Your task to perform on an android device: turn on priority inbox in the gmail app Image 0: 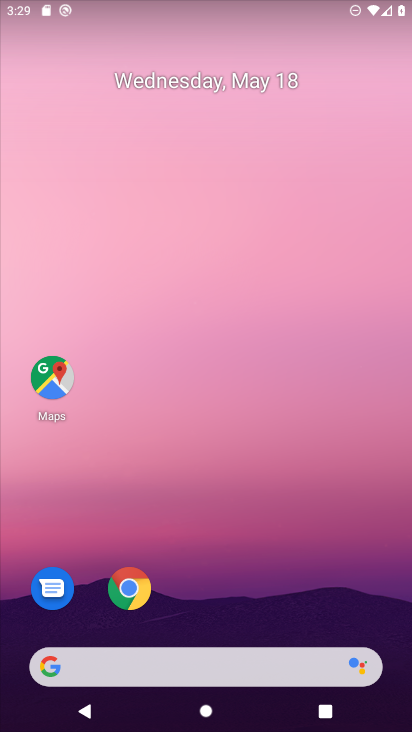
Step 0: drag from (314, 596) to (301, 170)
Your task to perform on an android device: turn on priority inbox in the gmail app Image 1: 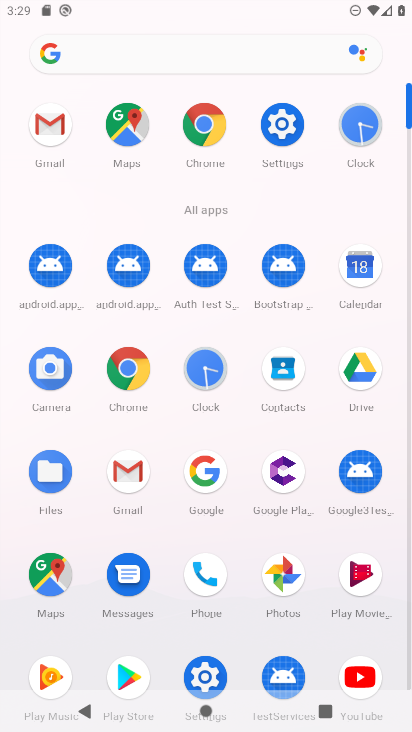
Step 1: click (26, 142)
Your task to perform on an android device: turn on priority inbox in the gmail app Image 2: 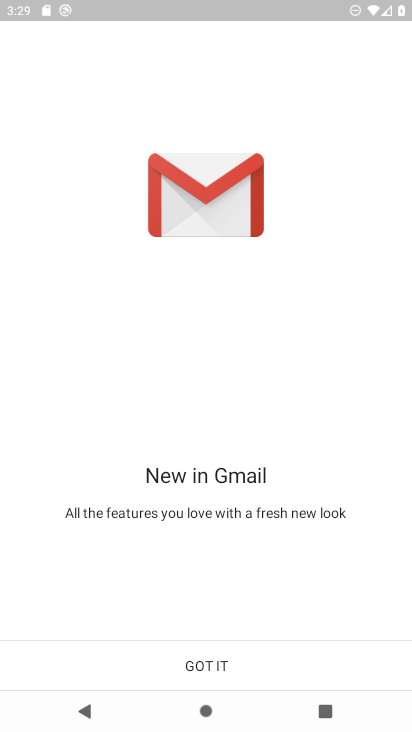
Step 2: click (245, 664)
Your task to perform on an android device: turn on priority inbox in the gmail app Image 3: 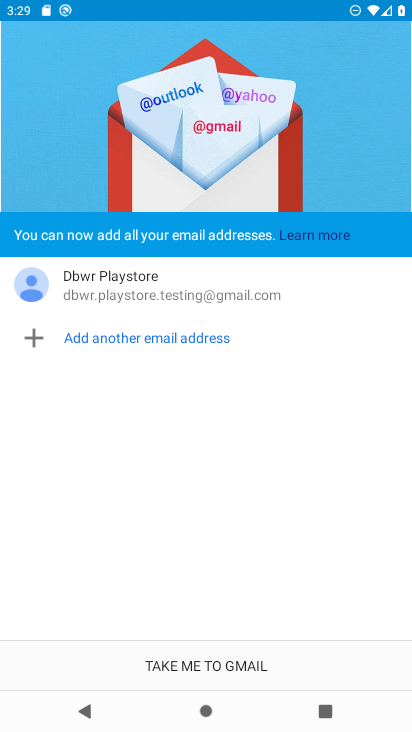
Step 3: click (245, 664)
Your task to perform on an android device: turn on priority inbox in the gmail app Image 4: 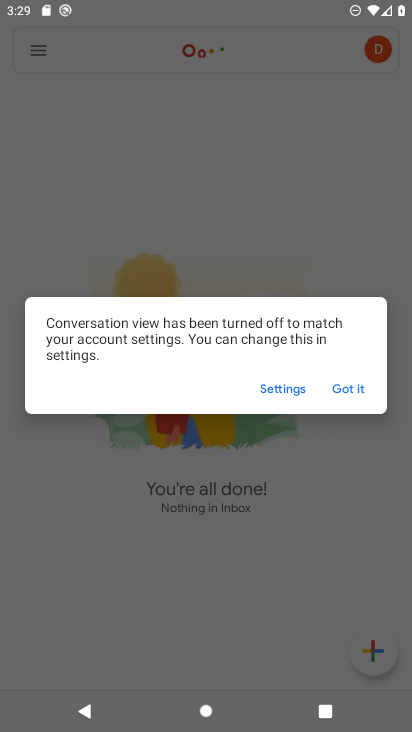
Step 4: click (364, 385)
Your task to perform on an android device: turn on priority inbox in the gmail app Image 5: 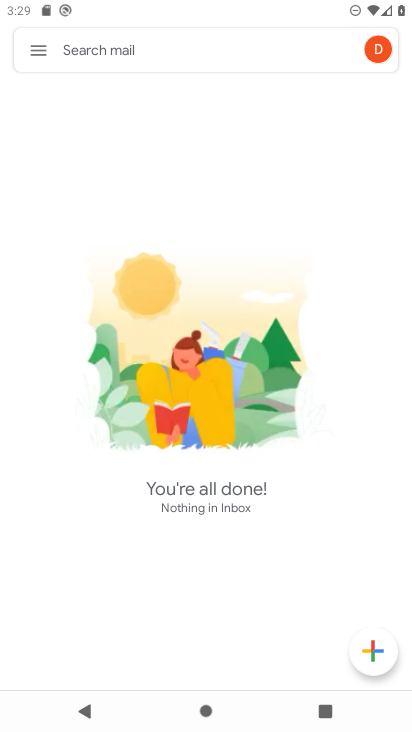
Step 5: click (34, 59)
Your task to perform on an android device: turn on priority inbox in the gmail app Image 6: 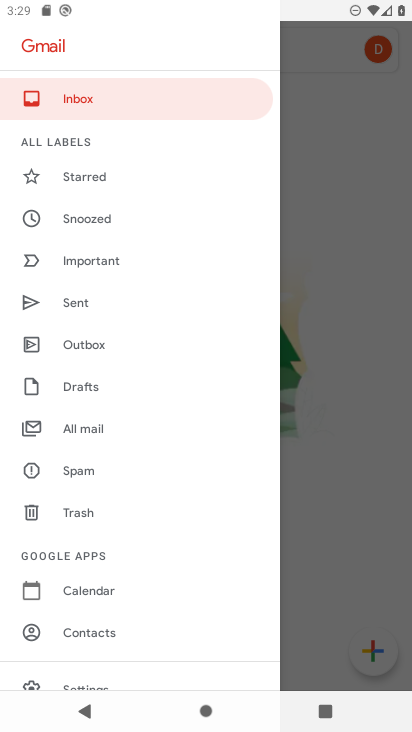
Step 6: drag from (84, 568) to (131, 215)
Your task to perform on an android device: turn on priority inbox in the gmail app Image 7: 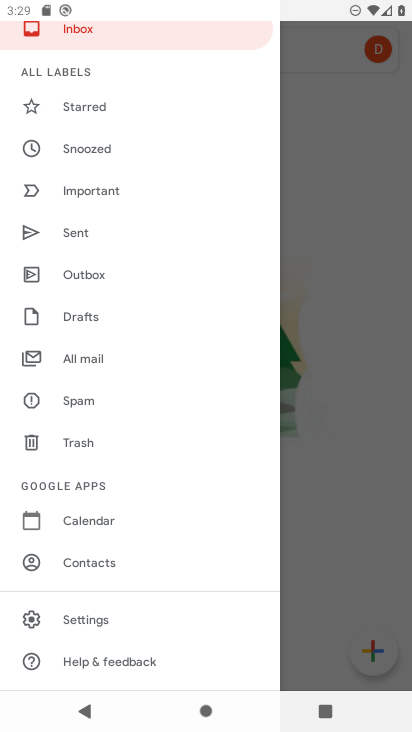
Step 7: click (89, 620)
Your task to perform on an android device: turn on priority inbox in the gmail app Image 8: 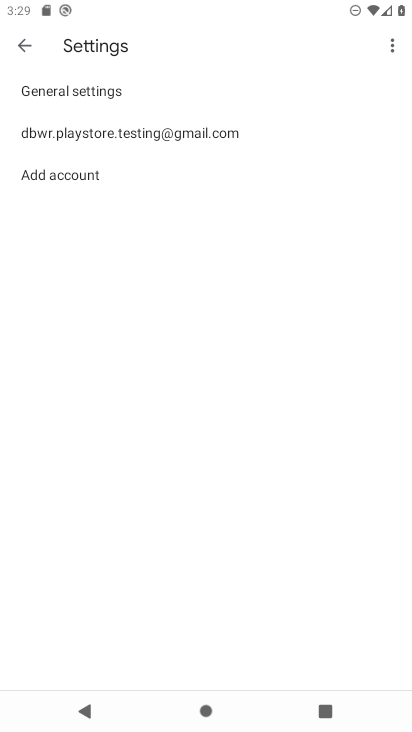
Step 8: click (54, 129)
Your task to perform on an android device: turn on priority inbox in the gmail app Image 9: 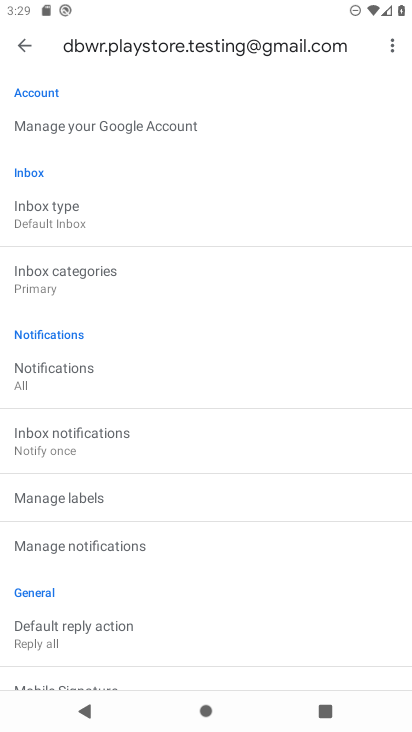
Step 9: click (96, 279)
Your task to perform on an android device: turn on priority inbox in the gmail app Image 10: 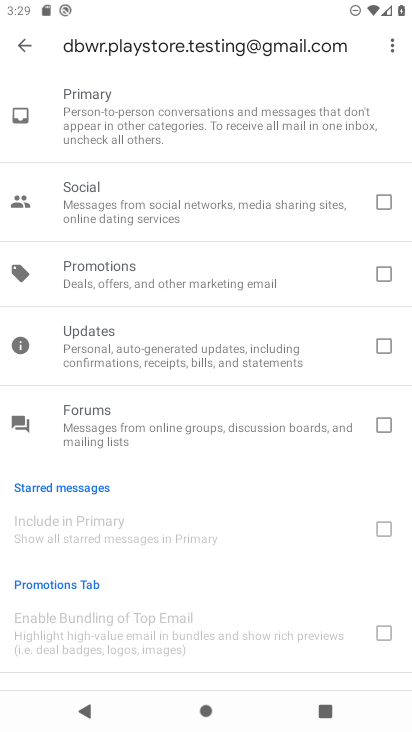
Step 10: click (25, 36)
Your task to perform on an android device: turn on priority inbox in the gmail app Image 11: 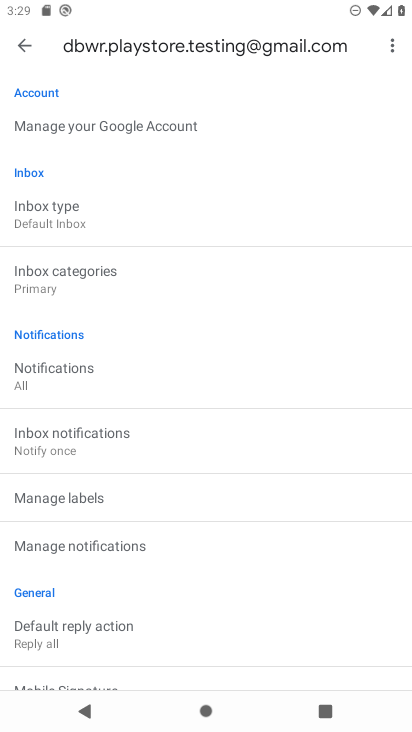
Step 11: click (115, 444)
Your task to perform on an android device: turn on priority inbox in the gmail app Image 12: 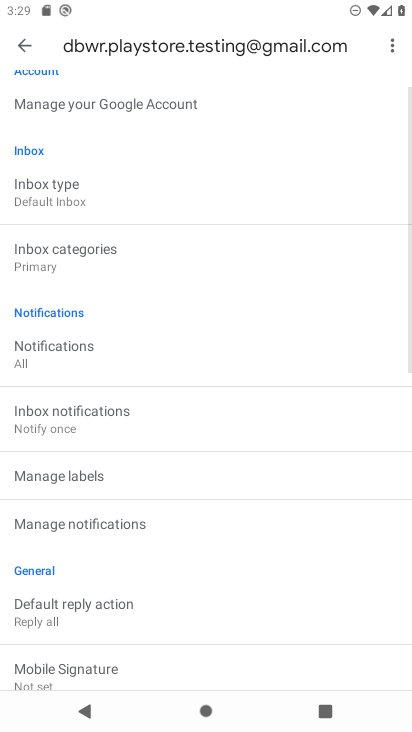
Step 12: click (119, 180)
Your task to perform on an android device: turn on priority inbox in the gmail app Image 13: 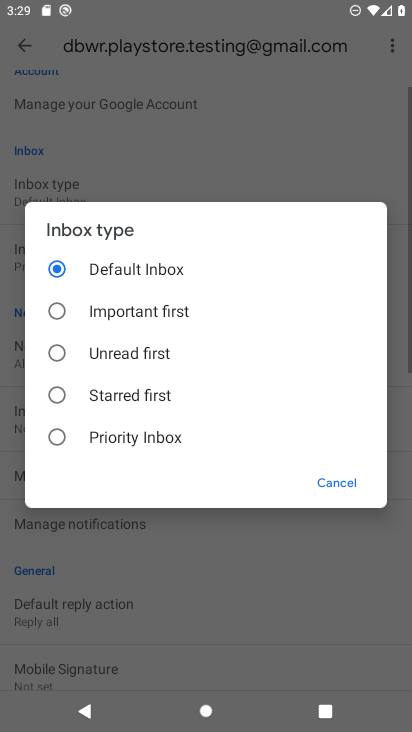
Step 13: click (119, 439)
Your task to perform on an android device: turn on priority inbox in the gmail app Image 14: 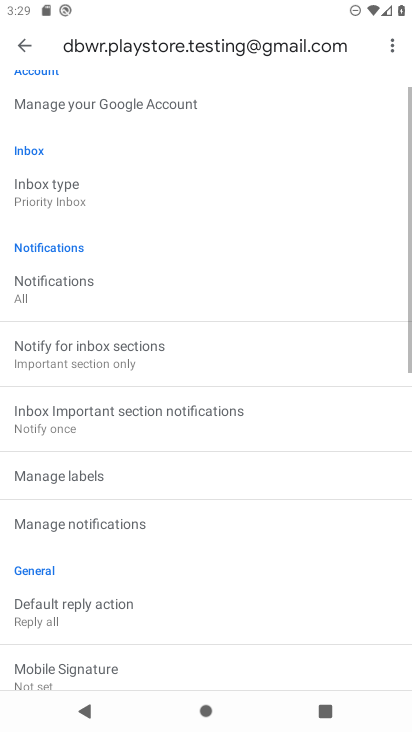
Step 14: task complete